Your task to perform on an android device: Open calendar and show me the second week of next month Image 0: 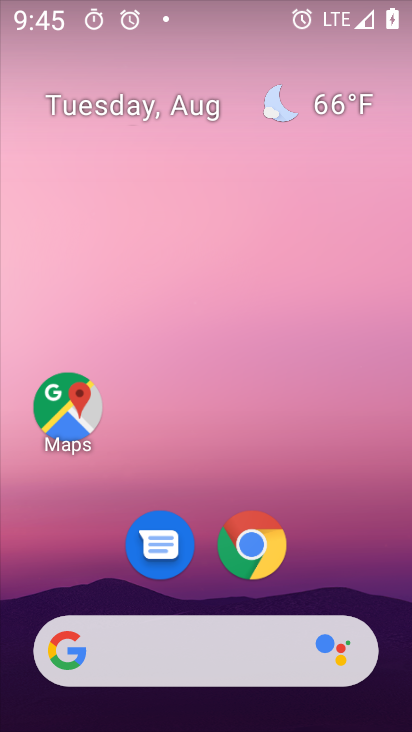
Step 0: drag from (242, 594) to (245, 114)
Your task to perform on an android device: Open calendar and show me the second week of next month Image 1: 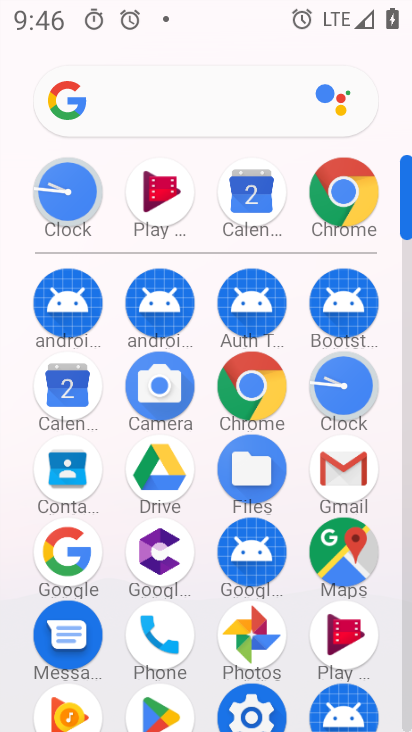
Step 1: click (74, 412)
Your task to perform on an android device: Open calendar and show me the second week of next month Image 2: 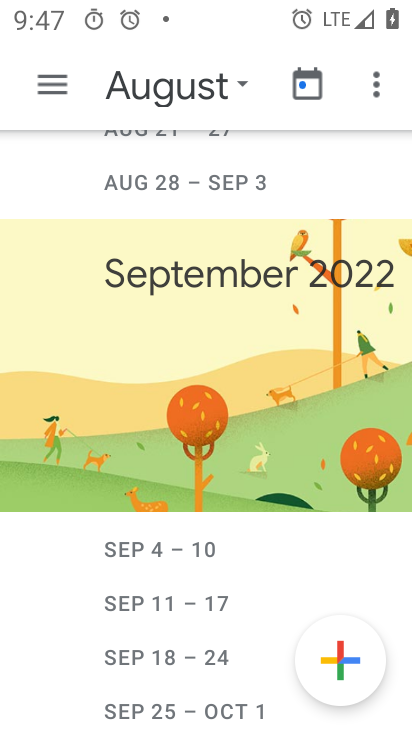
Step 2: click (200, 91)
Your task to perform on an android device: Open calendar and show me the second week of next month Image 3: 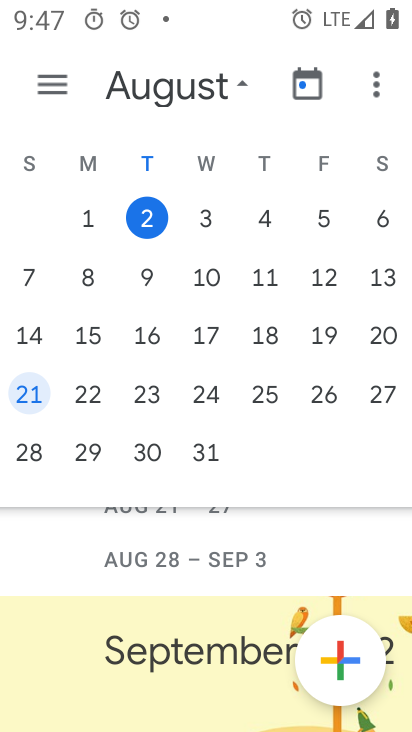
Step 3: drag from (318, 309) to (2, 298)
Your task to perform on an android device: Open calendar and show me the second week of next month Image 4: 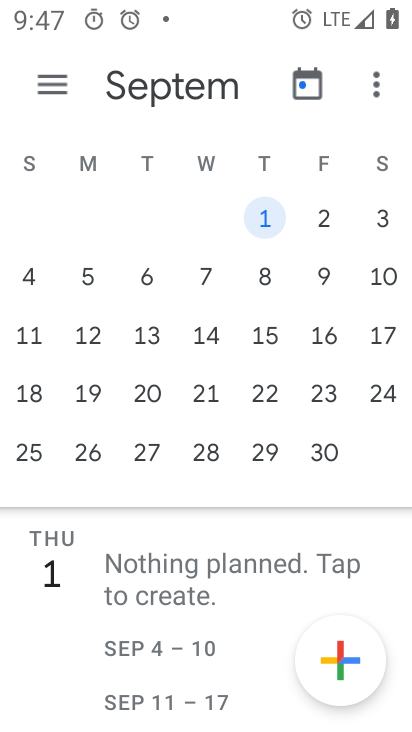
Step 4: click (25, 289)
Your task to perform on an android device: Open calendar and show me the second week of next month Image 5: 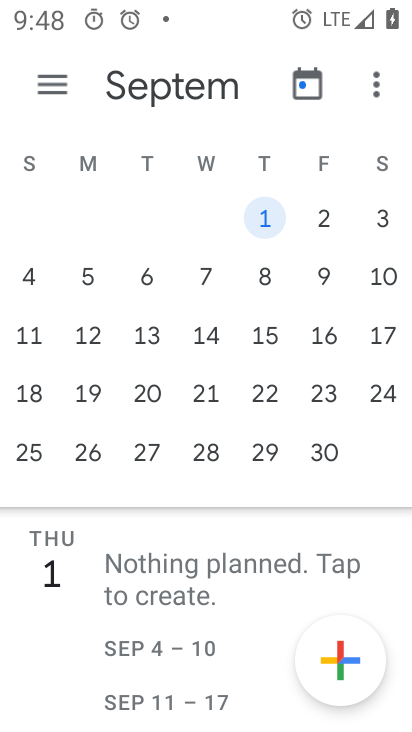
Step 5: task complete